Your task to perform on an android device: find snoozed emails in the gmail app Image 0: 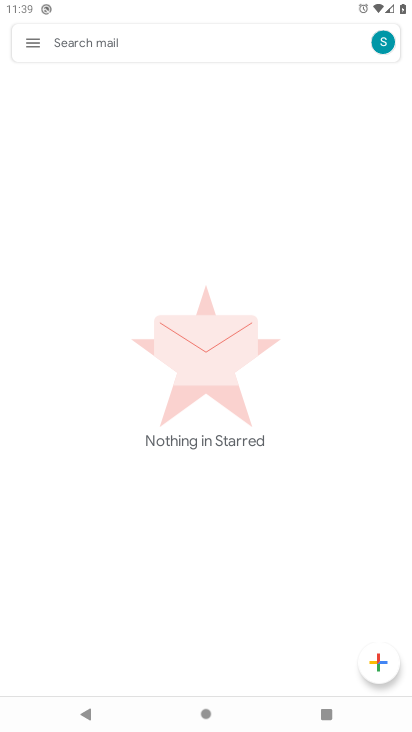
Step 0: press home button
Your task to perform on an android device: find snoozed emails in the gmail app Image 1: 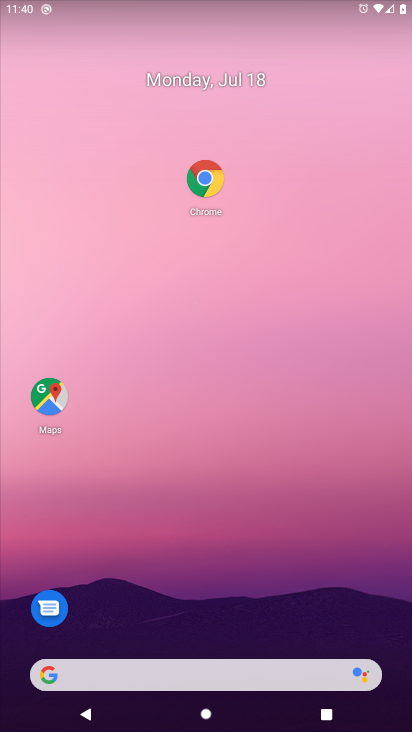
Step 1: drag from (27, 705) to (233, 40)
Your task to perform on an android device: find snoozed emails in the gmail app Image 2: 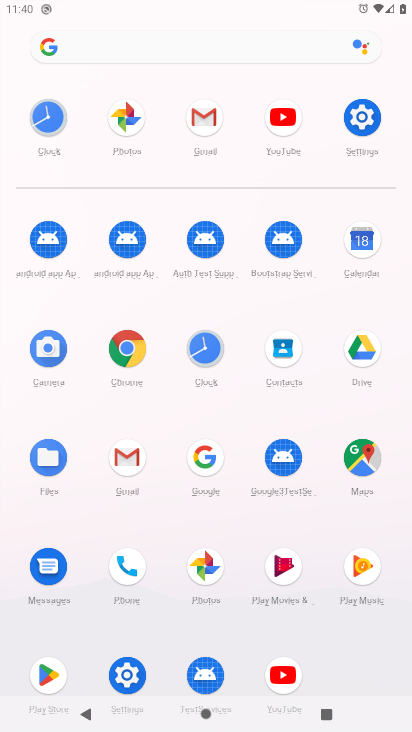
Step 2: click (129, 448)
Your task to perform on an android device: find snoozed emails in the gmail app Image 3: 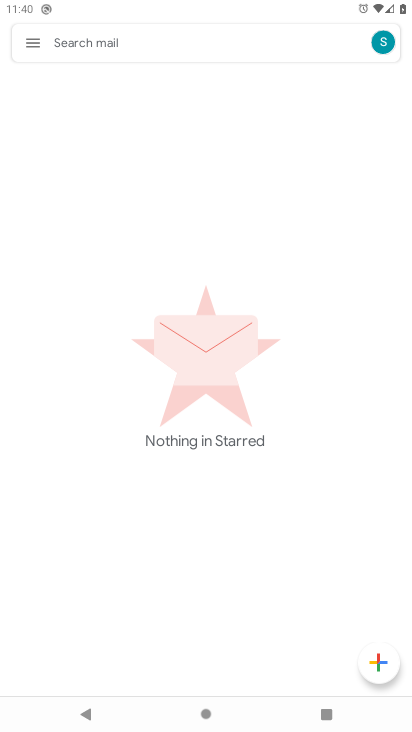
Step 3: click (40, 47)
Your task to perform on an android device: find snoozed emails in the gmail app Image 4: 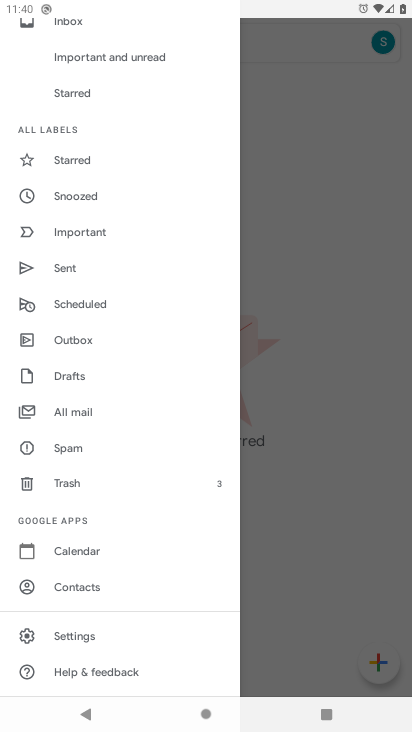
Step 4: click (85, 200)
Your task to perform on an android device: find snoozed emails in the gmail app Image 5: 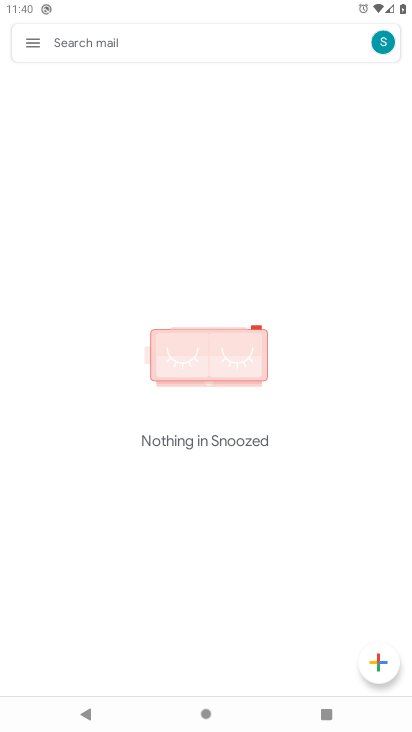
Step 5: task complete